Your task to perform on an android device: open wifi settings Image 0: 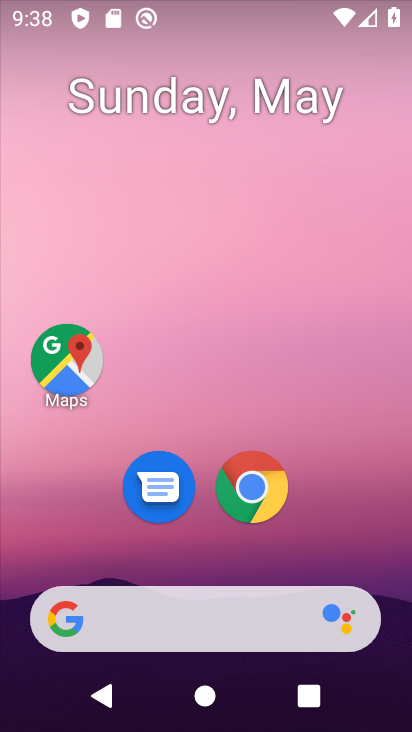
Step 0: drag from (391, 551) to (366, 179)
Your task to perform on an android device: open wifi settings Image 1: 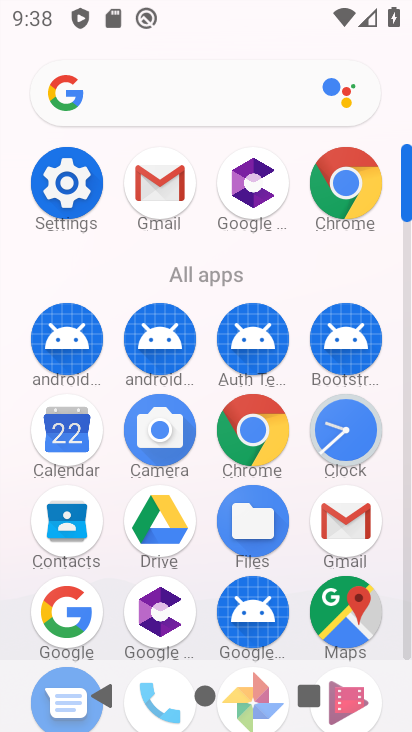
Step 1: click (75, 207)
Your task to perform on an android device: open wifi settings Image 2: 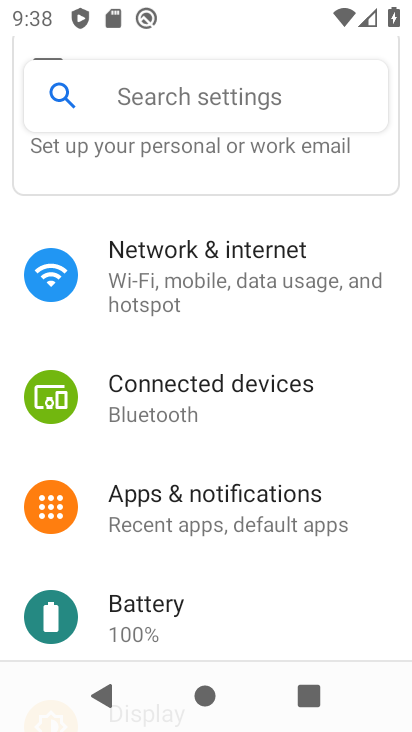
Step 2: drag from (306, 566) to (306, 424)
Your task to perform on an android device: open wifi settings Image 3: 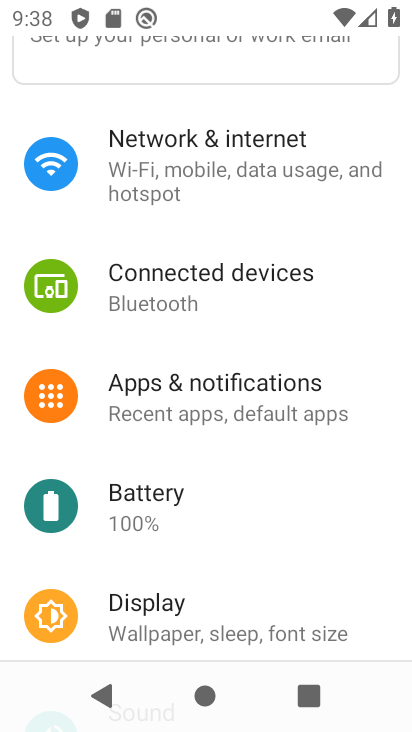
Step 3: drag from (312, 526) to (309, 382)
Your task to perform on an android device: open wifi settings Image 4: 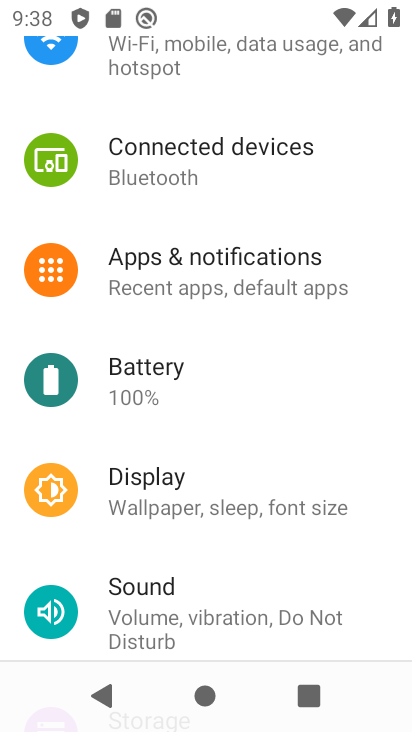
Step 4: drag from (320, 573) to (313, 430)
Your task to perform on an android device: open wifi settings Image 5: 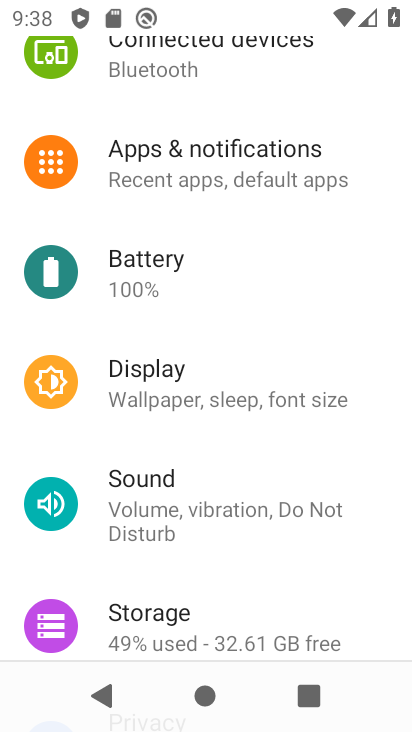
Step 5: drag from (326, 586) to (328, 464)
Your task to perform on an android device: open wifi settings Image 6: 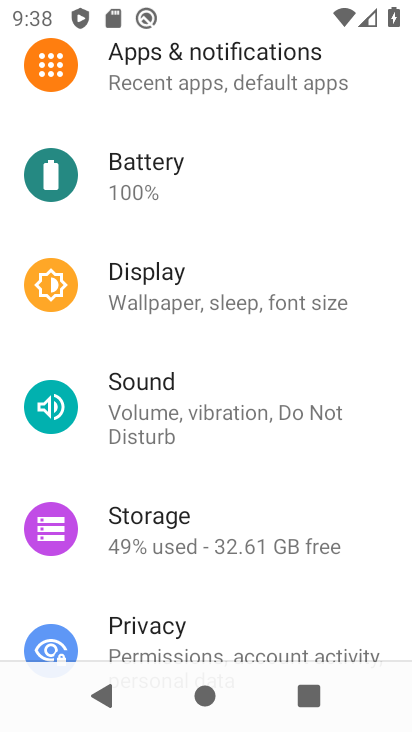
Step 6: drag from (350, 603) to (350, 490)
Your task to perform on an android device: open wifi settings Image 7: 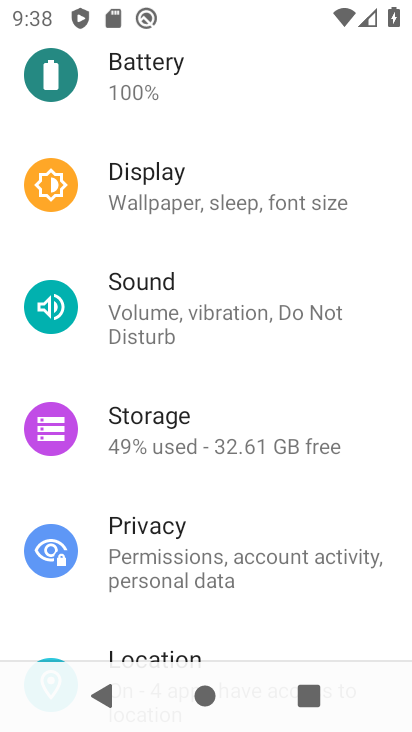
Step 7: drag from (377, 536) to (387, 459)
Your task to perform on an android device: open wifi settings Image 8: 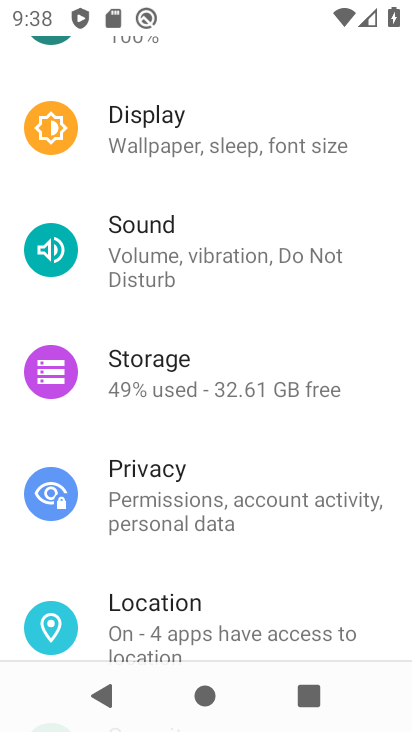
Step 8: drag from (376, 580) to (367, 425)
Your task to perform on an android device: open wifi settings Image 9: 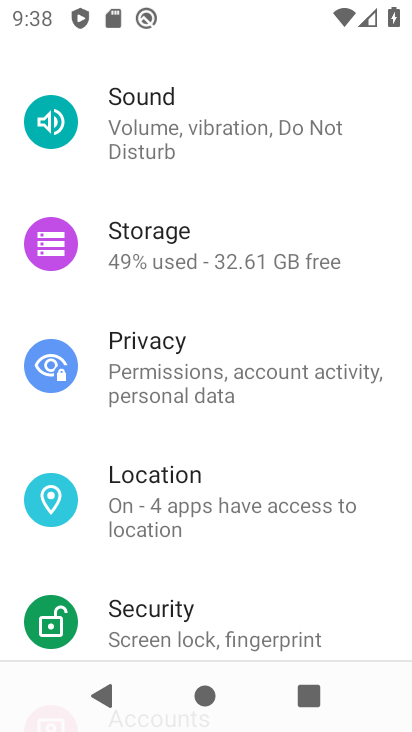
Step 9: drag from (375, 588) to (358, 412)
Your task to perform on an android device: open wifi settings Image 10: 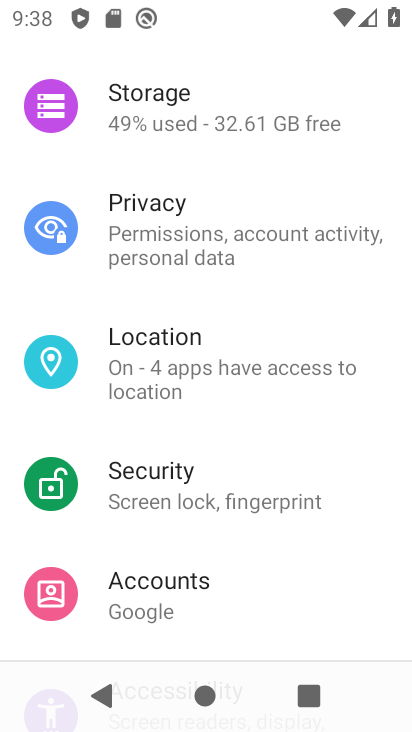
Step 10: drag from (369, 603) to (360, 430)
Your task to perform on an android device: open wifi settings Image 11: 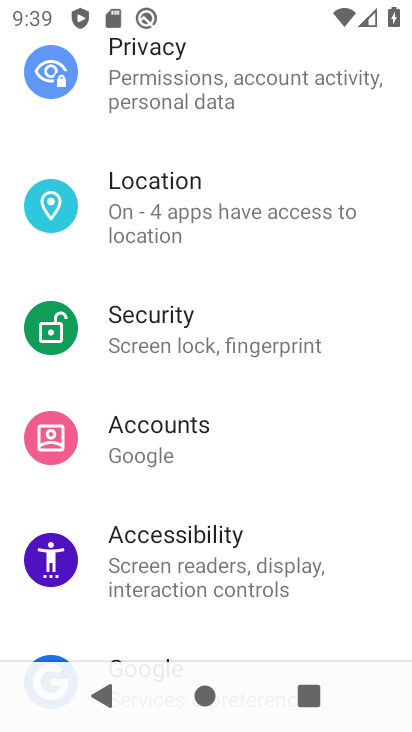
Step 11: drag from (329, 550) to (323, 395)
Your task to perform on an android device: open wifi settings Image 12: 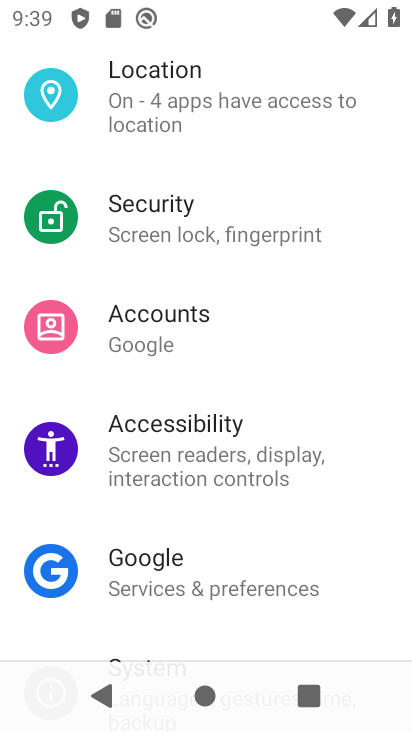
Step 12: drag from (304, 271) to (295, 413)
Your task to perform on an android device: open wifi settings Image 13: 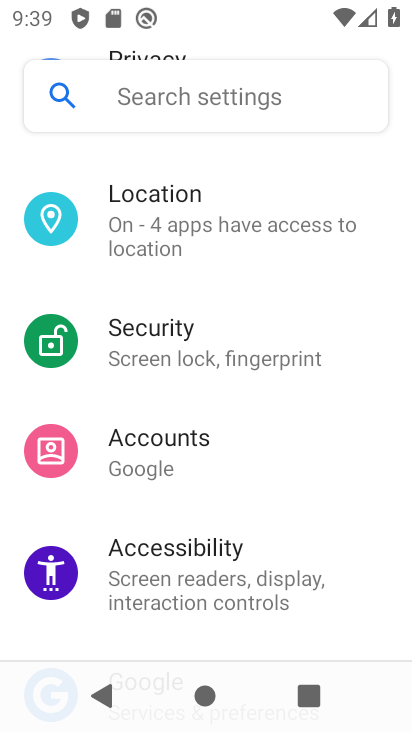
Step 13: drag from (331, 245) to (331, 403)
Your task to perform on an android device: open wifi settings Image 14: 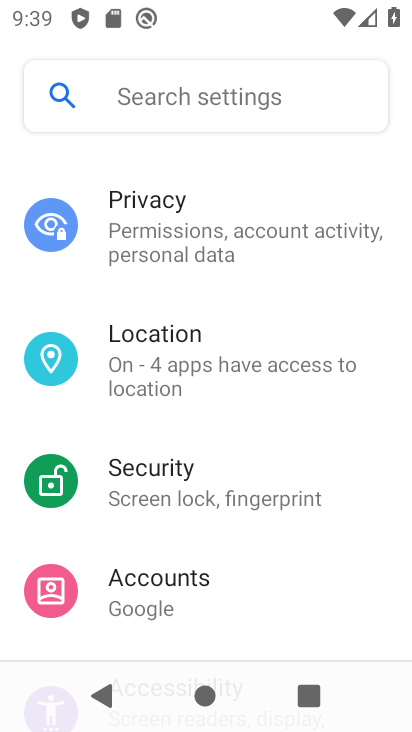
Step 14: drag from (321, 191) to (325, 381)
Your task to perform on an android device: open wifi settings Image 15: 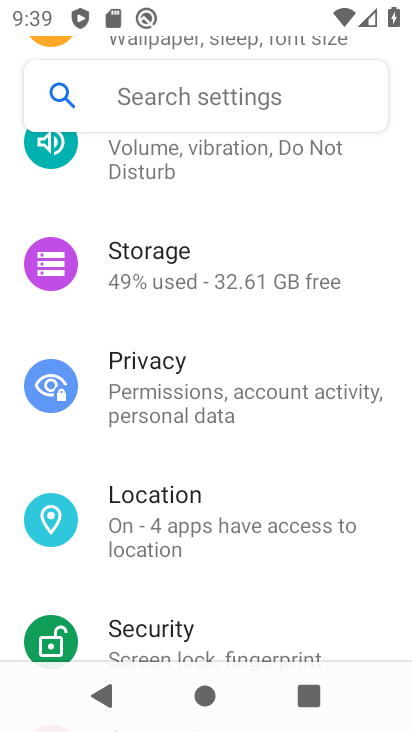
Step 15: drag from (326, 217) to (330, 395)
Your task to perform on an android device: open wifi settings Image 16: 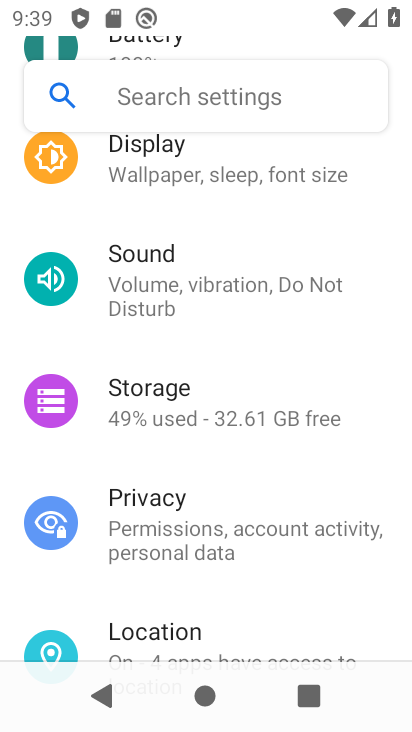
Step 16: drag from (331, 228) to (333, 402)
Your task to perform on an android device: open wifi settings Image 17: 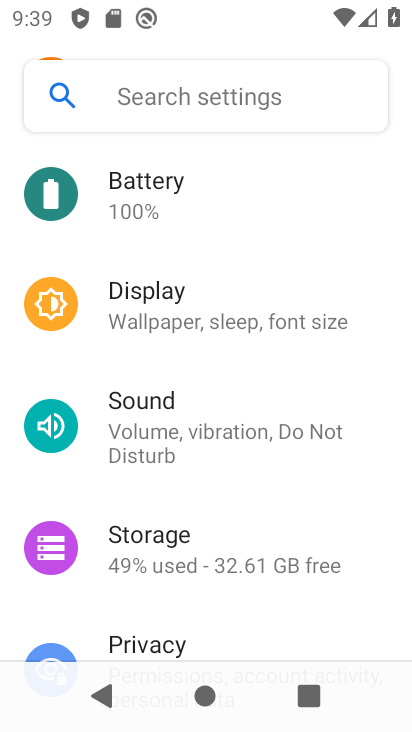
Step 17: drag from (336, 222) to (336, 406)
Your task to perform on an android device: open wifi settings Image 18: 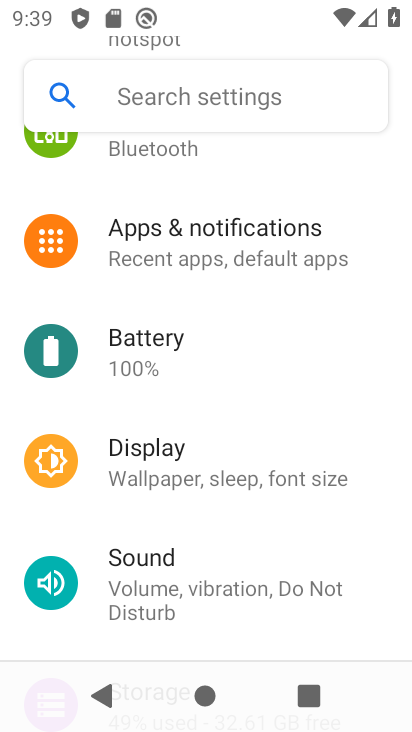
Step 18: drag from (355, 208) to (360, 383)
Your task to perform on an android device: open wifi settings Image 19: 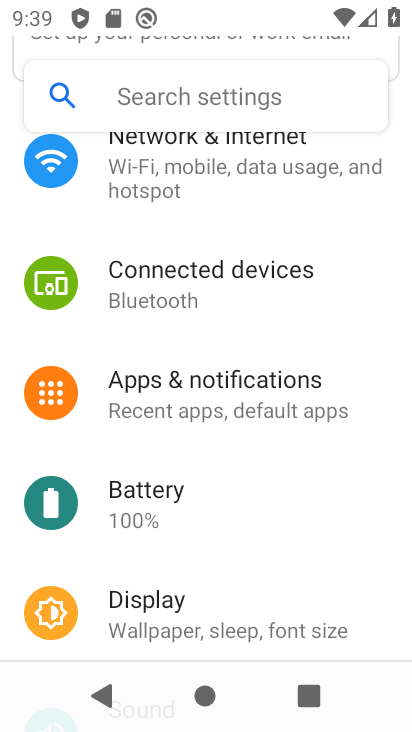
Step 19: drag from (349, 239) to (338, 348)
Your task to perform on an android device: open wifi settings Image 20: 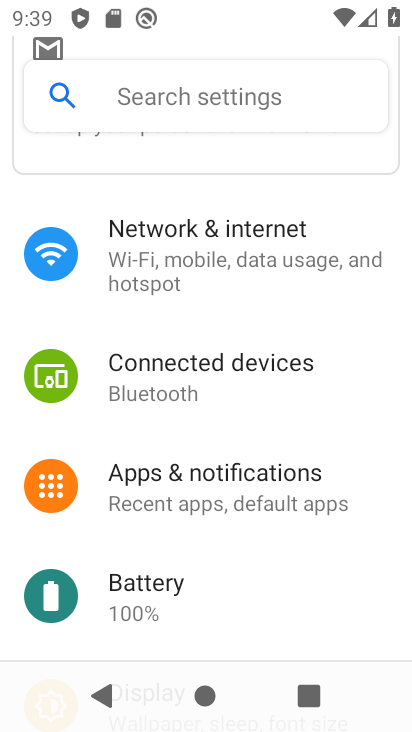
Step 20: click (261, 245)
Your task to perform on an android device: open wifi settings Image 21: 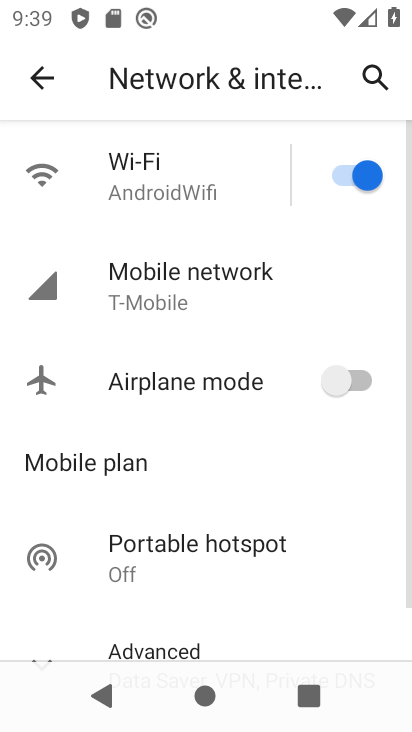
Step 21: click (163, 171)
Your task to perform on an android device: open wifi settings Image 22: 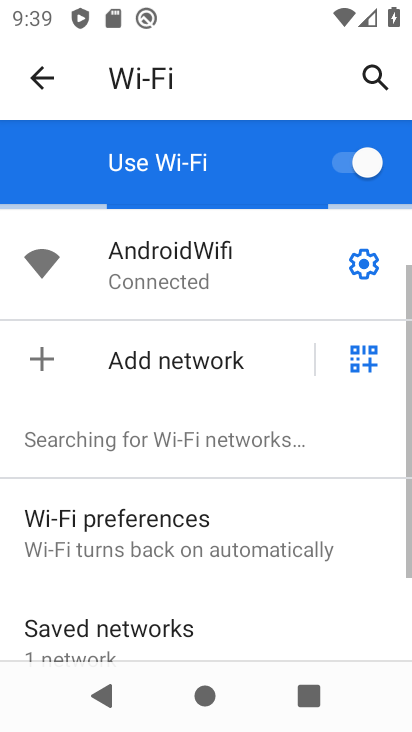
Step 22: task complete